Your task to perform on an android device: Open Google Maps Image 0: 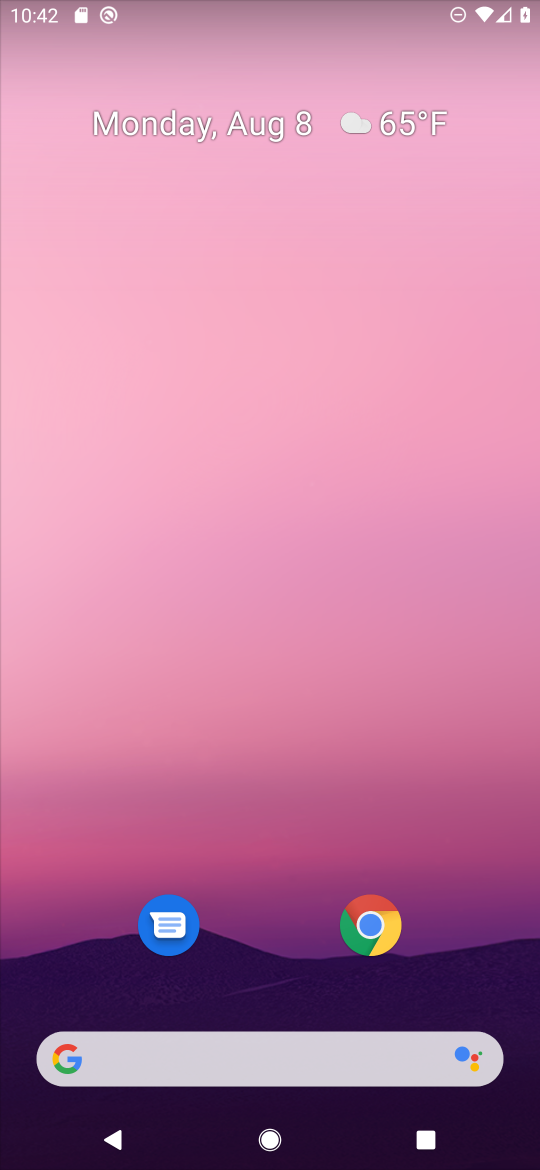
Step 0: press home button
Your task to perform on an android device: Open Google Maps Image 1: 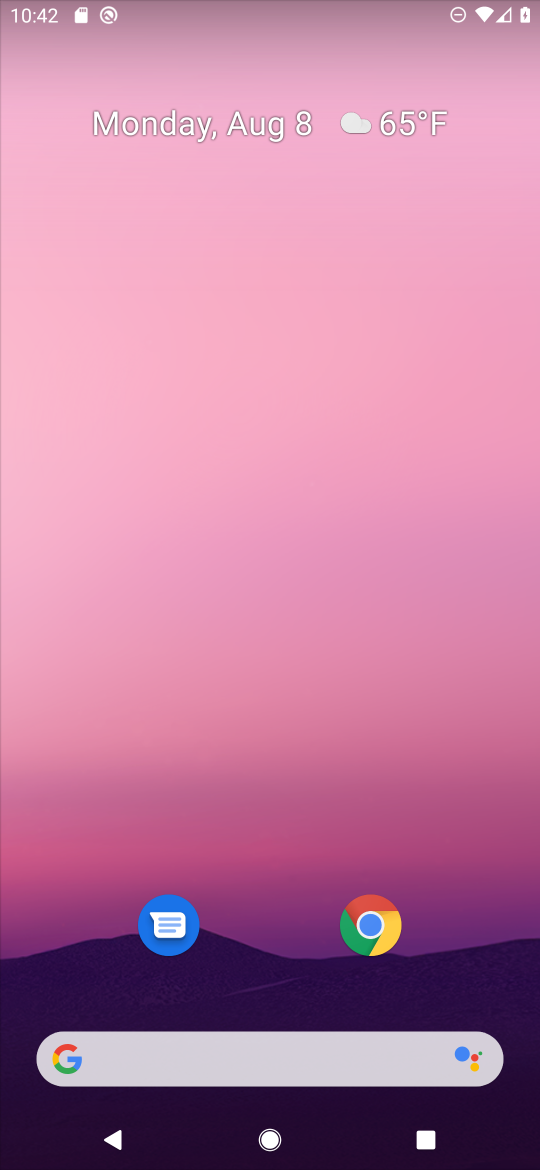
Step 1: drag from (268, 900) to (382, 57)
Your task to perform on an android device: Open Google Maps Image 2: 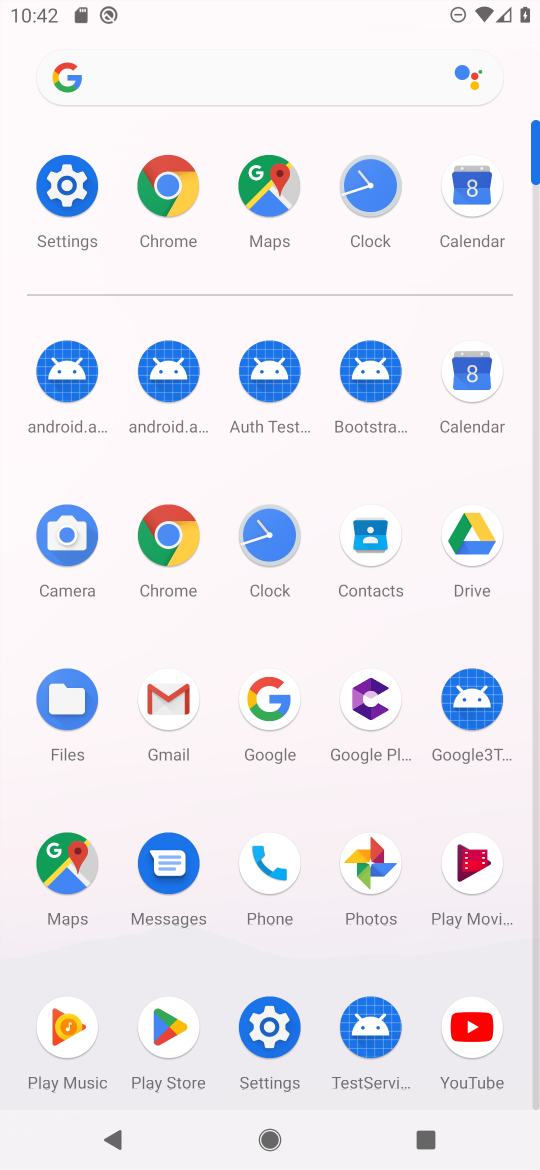
Step 2: click (70, 856)
Your task to perform on an android device: Open Google Maps Image 3: 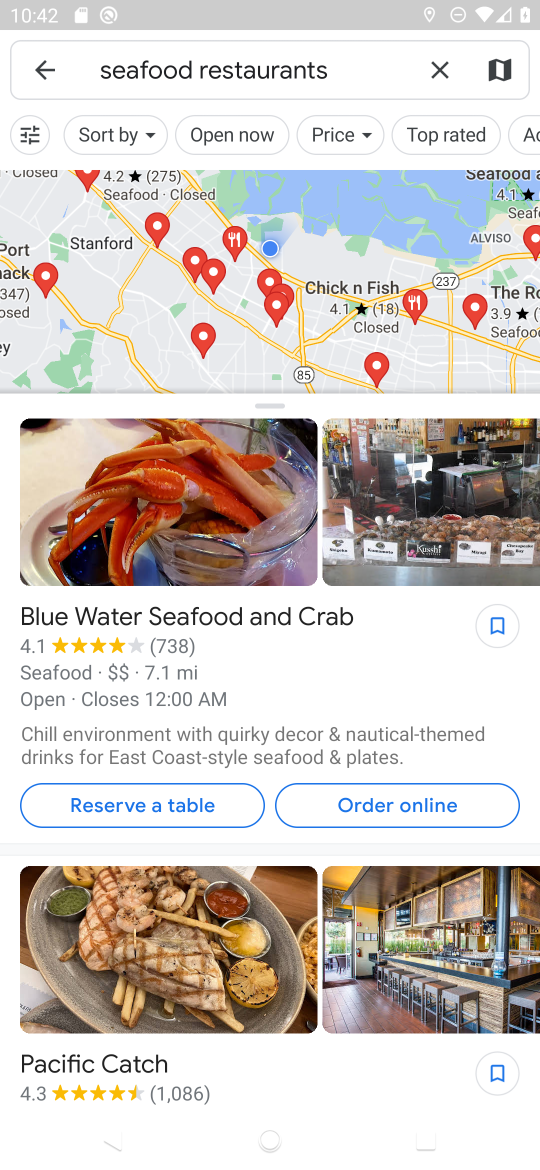
Step 3: task complete